Your task to perform on an android device: Go to ESPN.com Image 0: 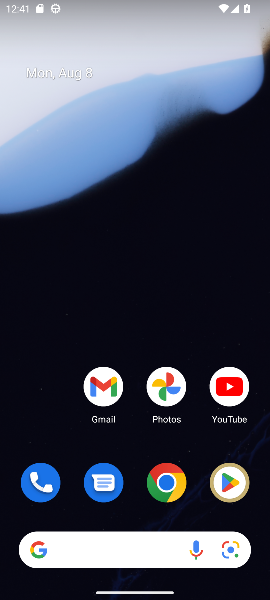
Step 0: drag from (149, 538) to (168, 56)
Your task to perform on an android device: Go to ESPN.com Image 1: 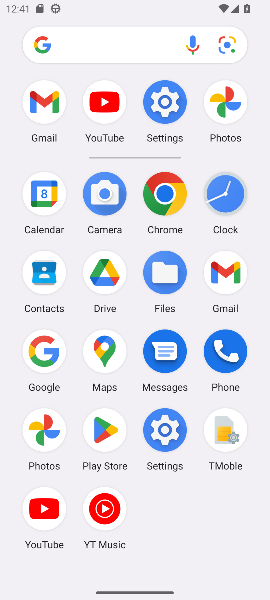
Step 1: click (166, 209)
Your task to perform on an android device: Go to ESPN.com Image 2: 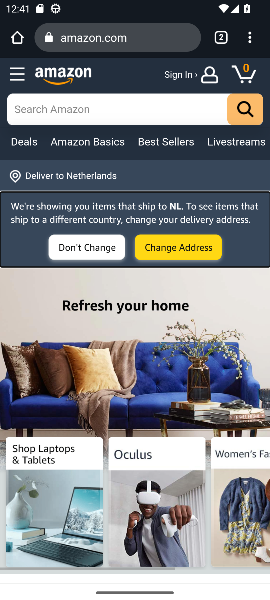
Step 2: click (79, 35)
Your task to perform on an android device: Go to ESPN.com Image 3: 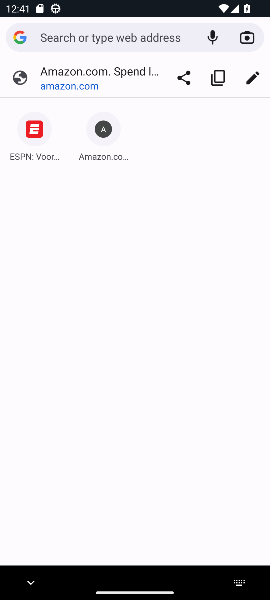
Step 3: type "espn.com"
Your task to perform on an android device: Go to ESPN.com Image 4: 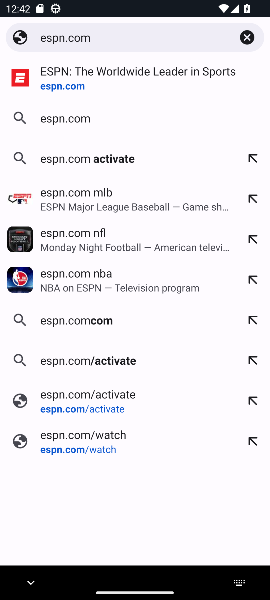
Step 4: click (170, 77)
Your task to perform on an android device: Go to ESPN.com Image 5: 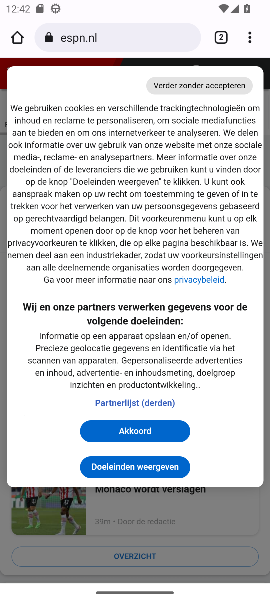
Step 5: task complete